Your task to perform on an android device: turn off sleep mode Image 0: 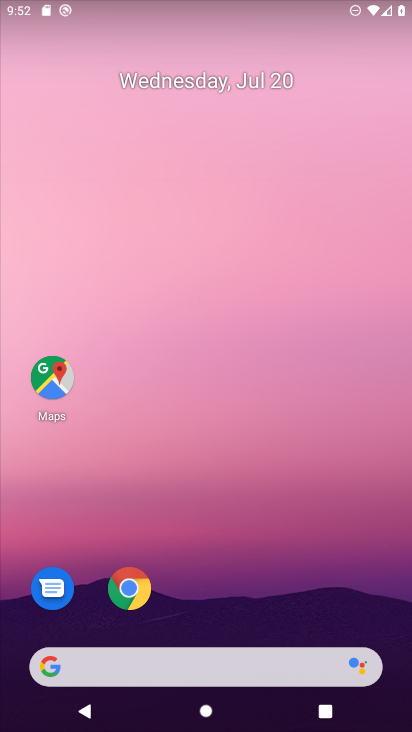
Step 0: drag from (185, 623) to (174, 111)
Your task to perform on an android device: turn off sleep mode Image 1: 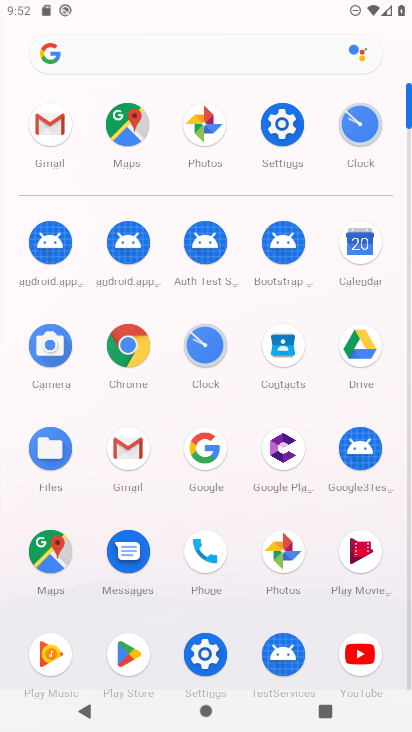
Step 1: click (287, 126)
Your task to perform on an android device: turn off sleep mode Image 2: 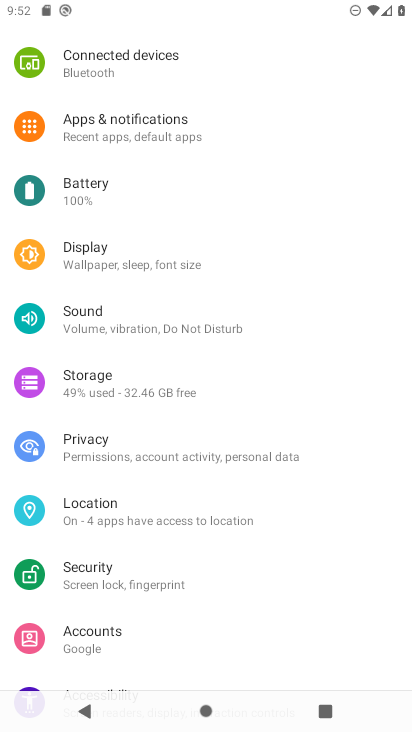
Step 2: task complete